Your task to perform on an android device: turn off airplane mode Image 0: 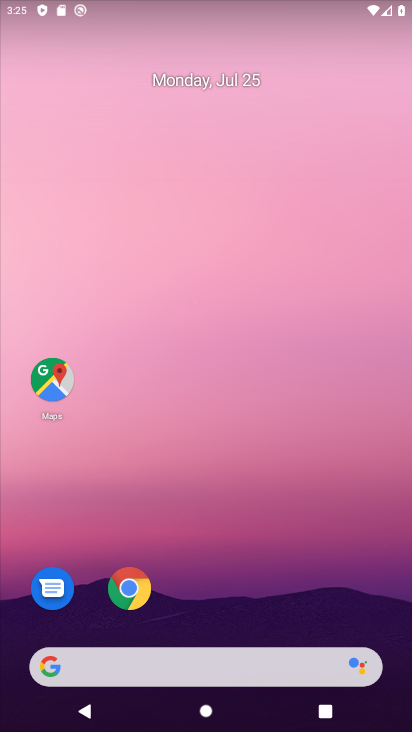
Step 0: drag from (342, 7) to (354, 602)
Your task to perform on an android device: turn off airplane mode Image 1: 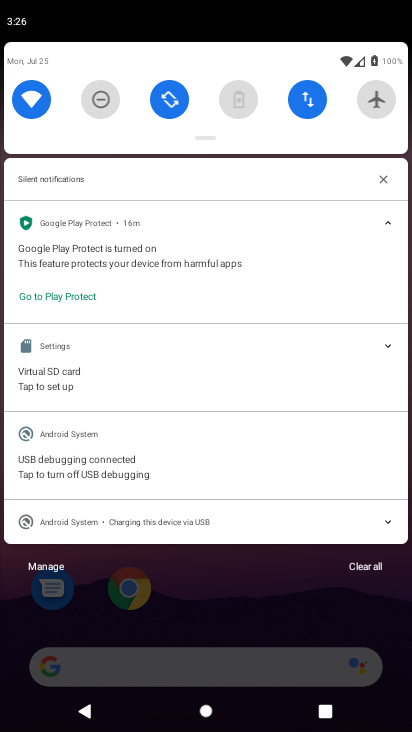
Step 1: task complete